Your task to perform on an android device: install app "Facebook" Image 0: 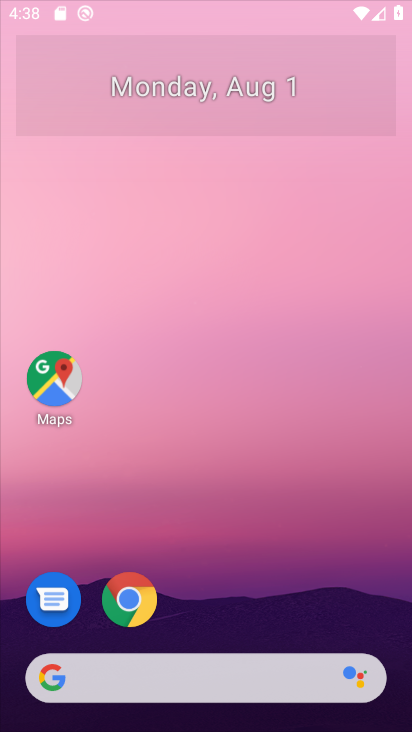
Step 0: click (276, 95)
Your task to perform on an android device: install app "Facebook" Image 1: 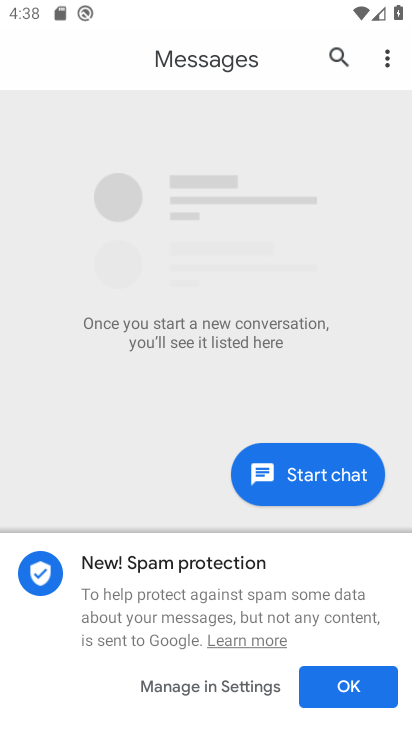
Step 1: press home button
Your task to perform on an android device: install app "Facebook" Image 2: 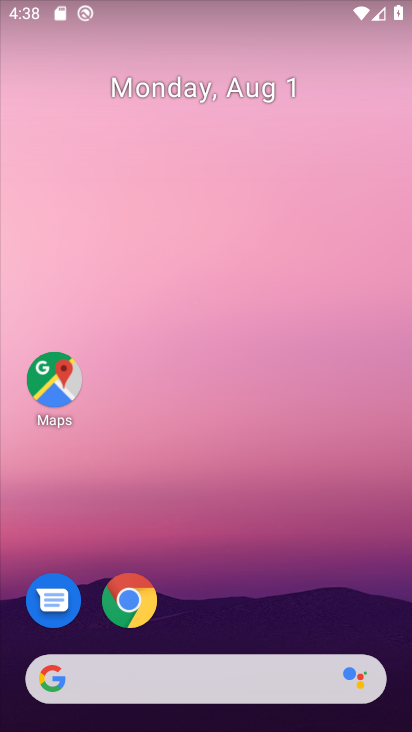
Step 2: drag from (285, 593) to (286, 60)
Your task to perform on an android device: install app "Facebook" Image 3: 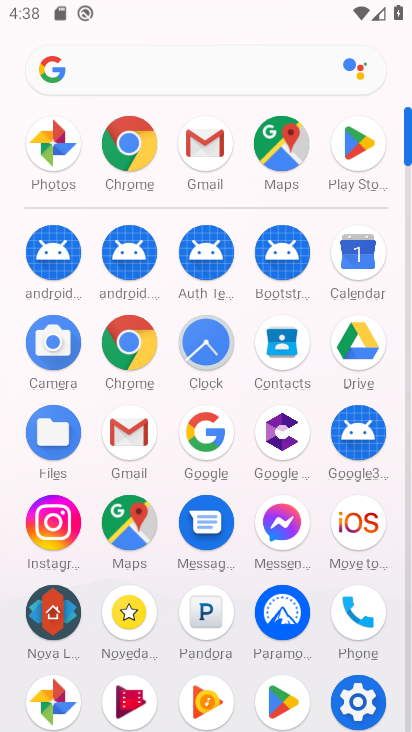
Step 3: click (367, 145)
Your task to perform on an android device: install app "Facebook" Image 4: 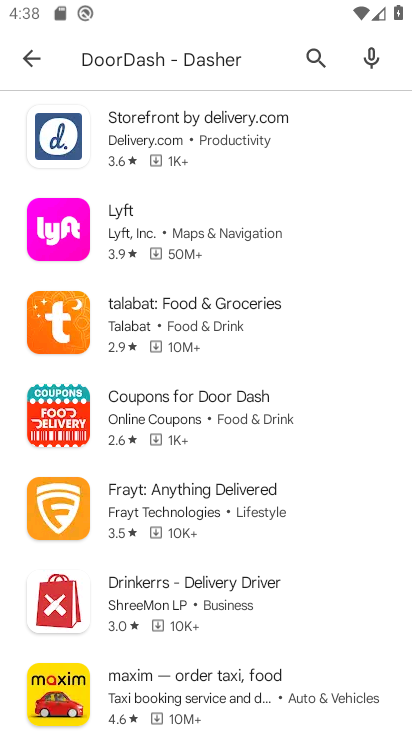
Step 4: click (227, 64)
Your task to perform on an android device: install app "Facebook" Image 5: 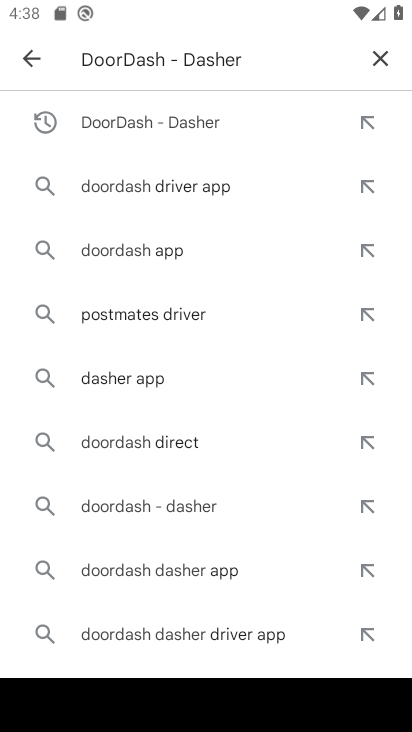
Step 5: click (388, 52)
Your task to perform on an android device: install app "Facebook" Image 6: 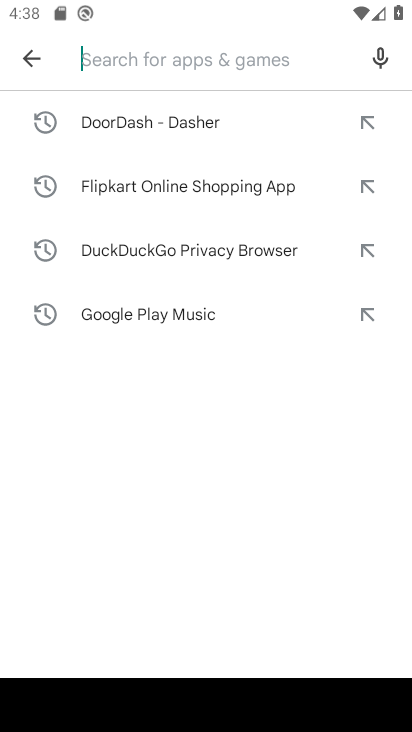
Step 6: type "Facebook"
Your task to perform on an android device: install app "Facebook" Image 7: 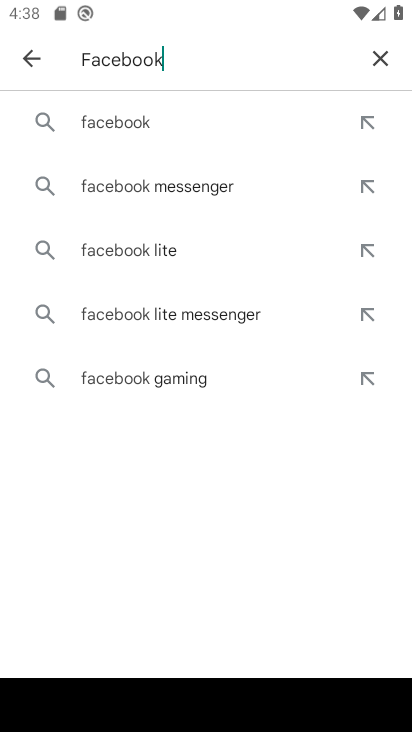
Step 7: click (154, 109)
Your task to perform on an android device: install app "Facebook" Image 8: 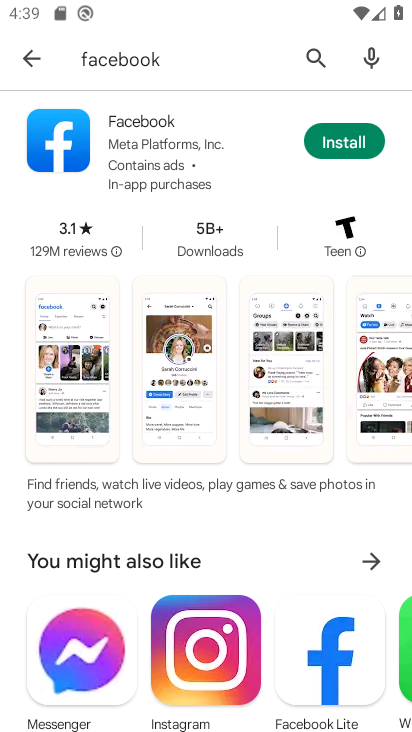
Step 8: click (348, 144)
Your task to perform on an android device: install app "Facebook" Image 9: 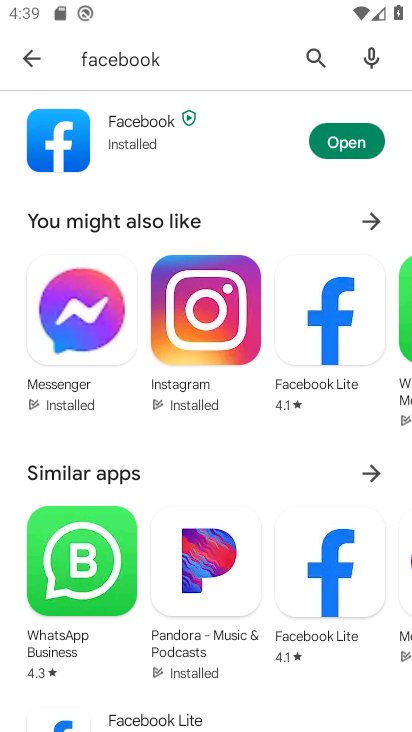
Step 9: task complete